Your task to perform on an android device: Open Google Image 0: 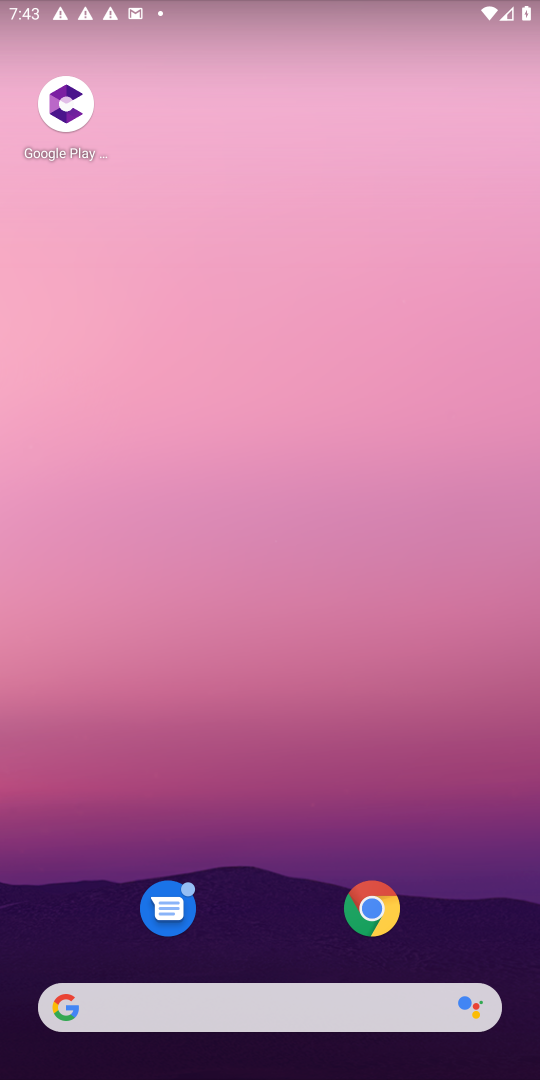
Step 0: drag from (175, 1047) to (255, 305)
Your task to perform on an android device: Open Google Image 1: 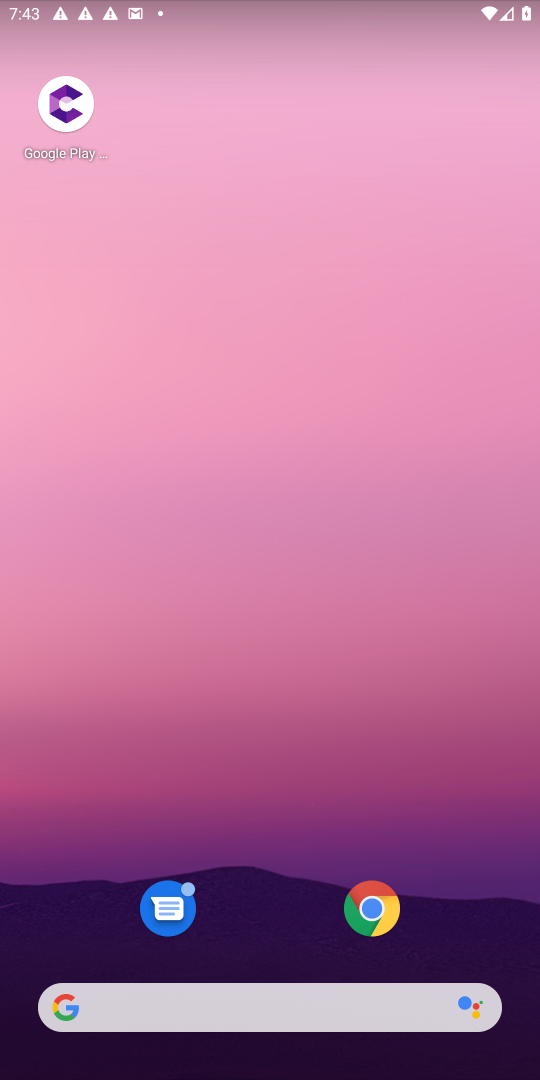
Step 1: drag from (299, 749) to (300, 59)
Your task to perform on an android device: Open Google Image 2: 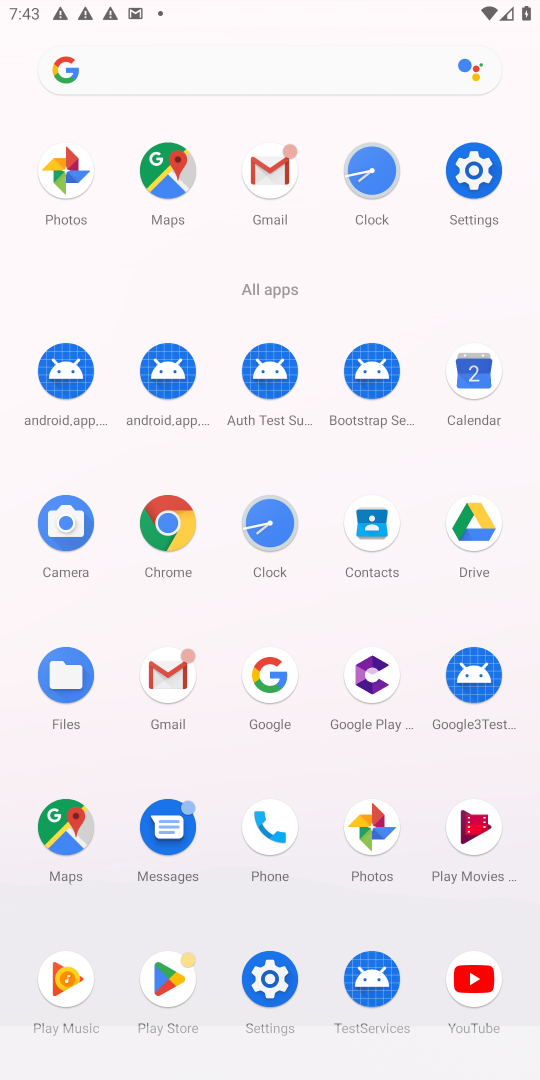
Step 2: click (269, 653)
Your task to perform on an android device: Open Google Image 3: 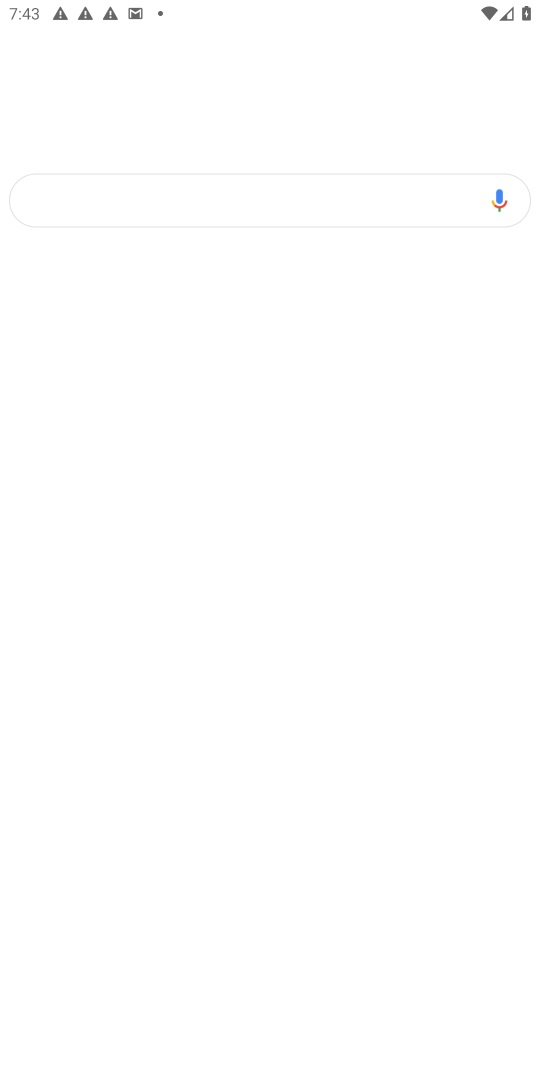
Step 3: click (253, 677)
Your task to perform on an android device: Open Google Image 4: 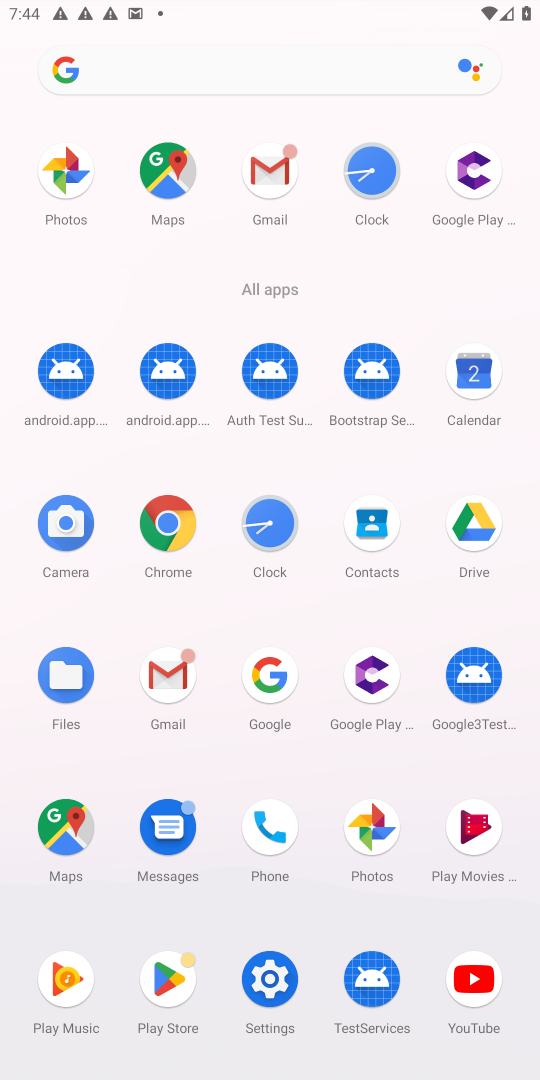
Step 4: click (242, 676)
Your task to perform on an android device: Open Google Image 5: 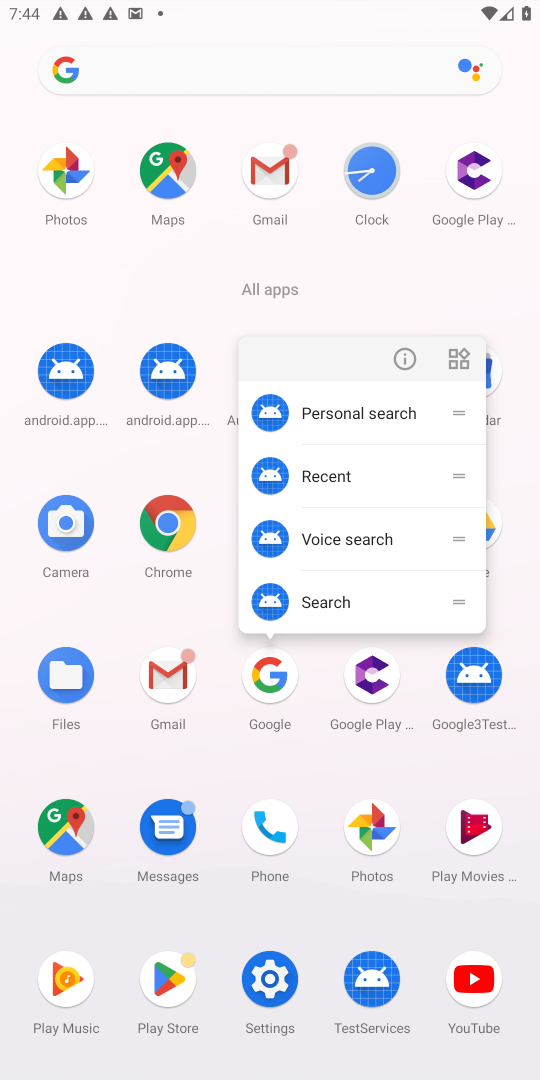
Step 5: click (280, 681)
Your task to perform on an android device: Open Google Image 6: 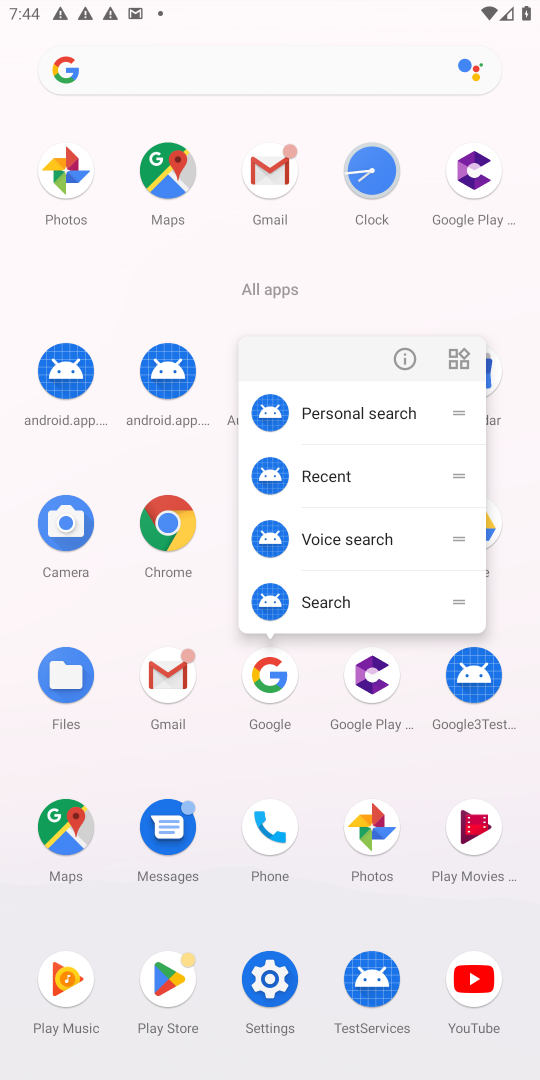
Step 6: click (252, 701)
Your task to perform on an android device: Open Google Image 7: 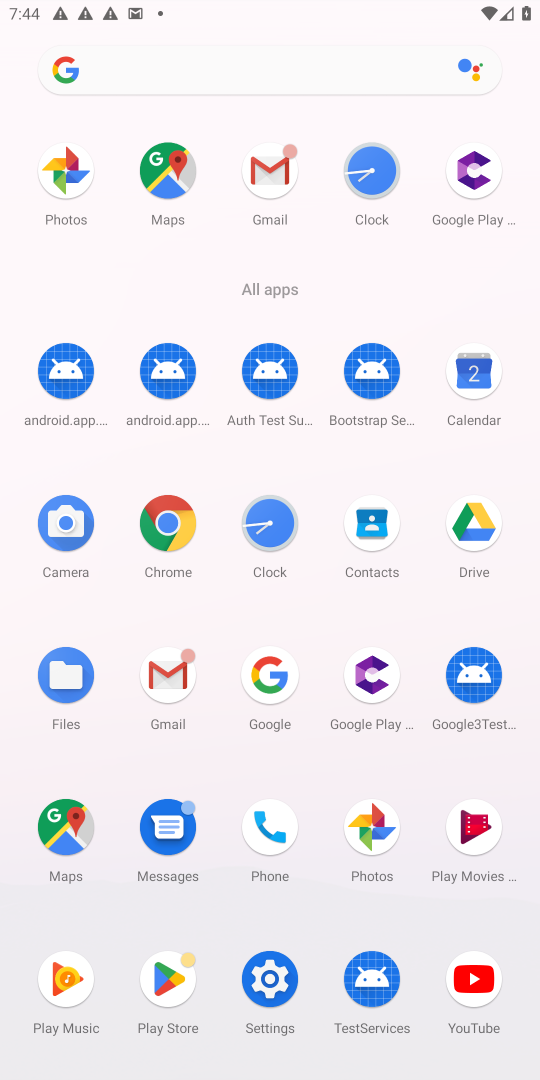
Step 7: click (252, 701)
Your task to perform on an android device: Open Google Image 8: 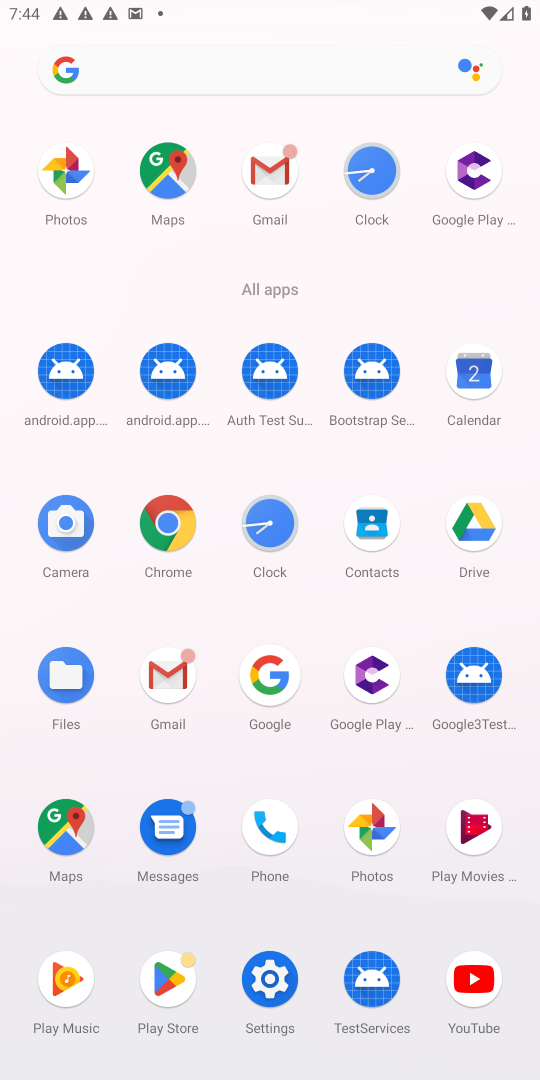
Step 8: click (259, 670)
Your task to perform on an android device: Open Google Image 9: 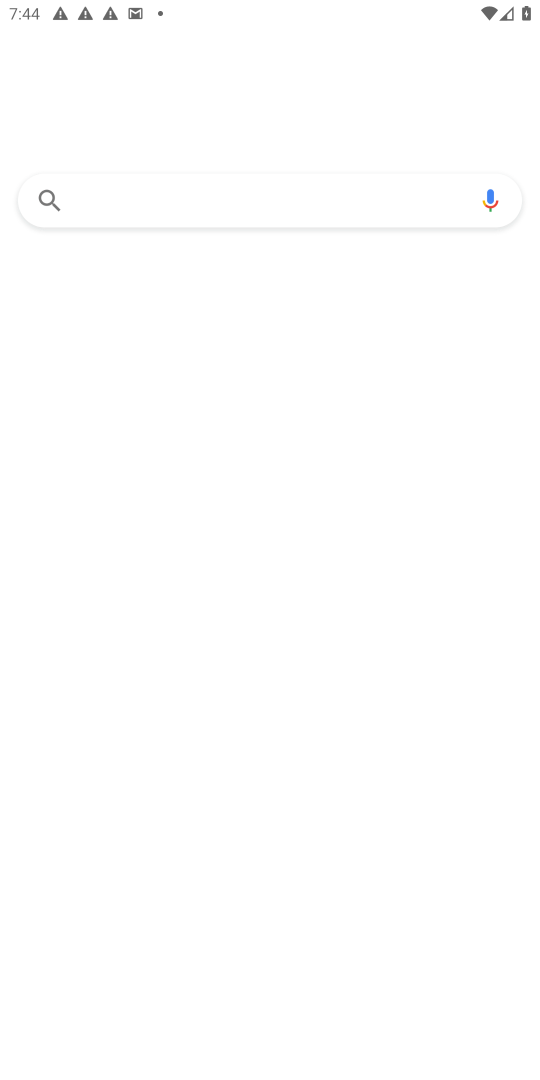
Step 9: click (283, 659)
Your task to perform on an android device: Open Google Image 10: 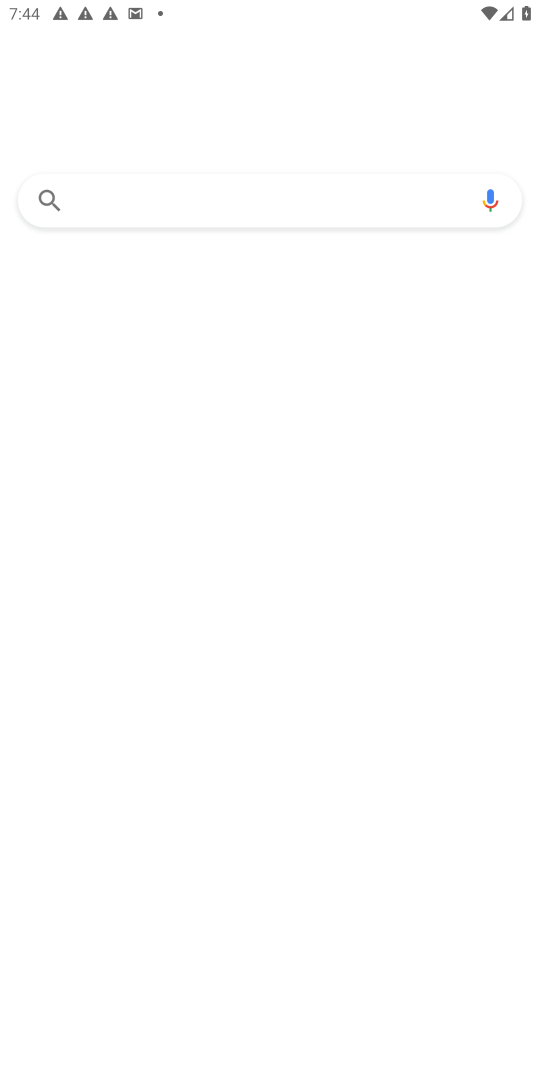
Step 10: click (283, 659)
Your task to perform on an android device: Open Google Image 11: 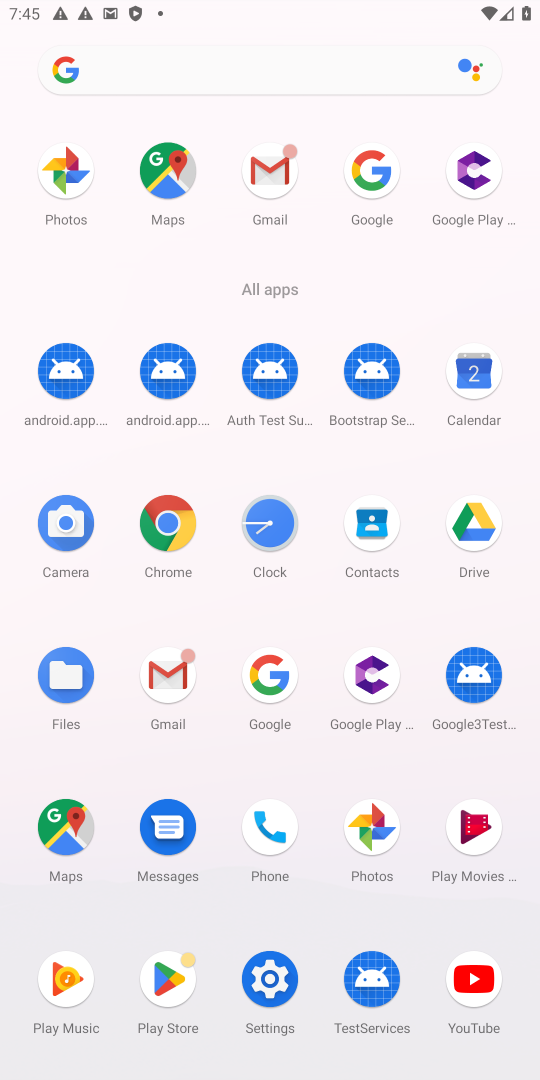
Step 11: click (254, 683)
Your task to perform on an android device: Open Google Image 12: 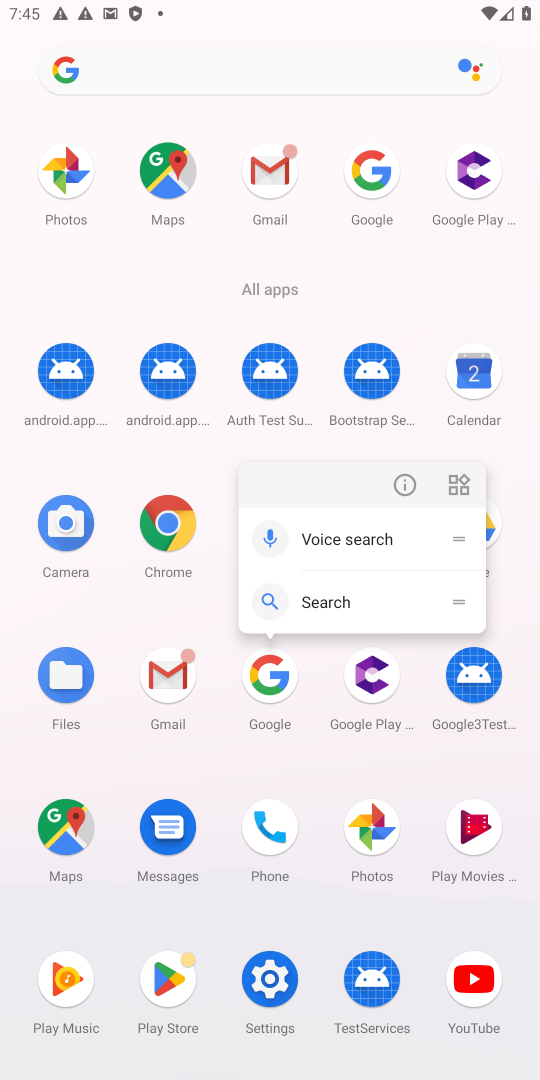
Step 12: click (254, 680)
Your task to perform on an android device: Open Google Image 13: 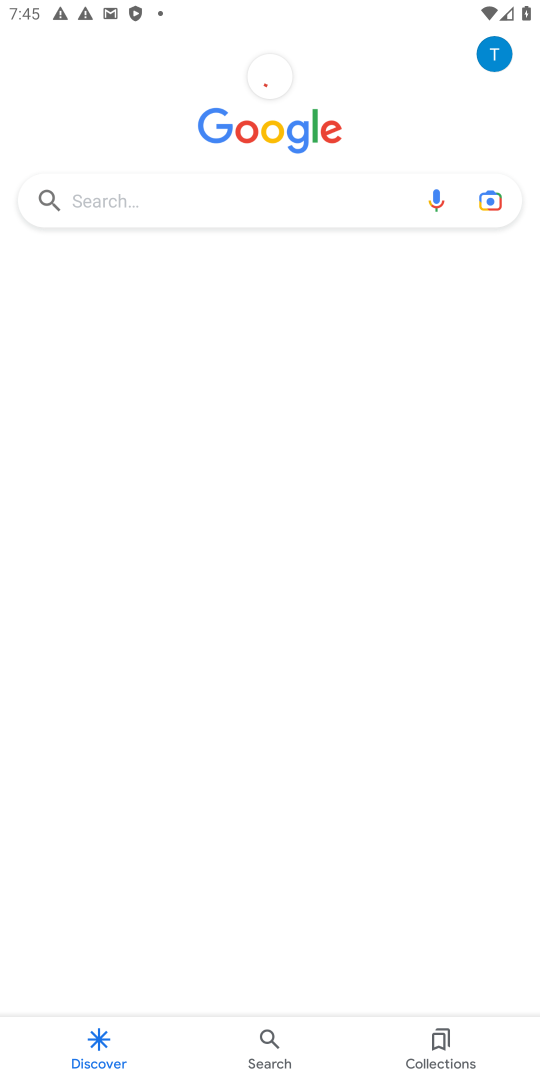
Step 13: task complete